Your task to perform on an android device: Search for vegetarian restaurants on Maps Image 0: 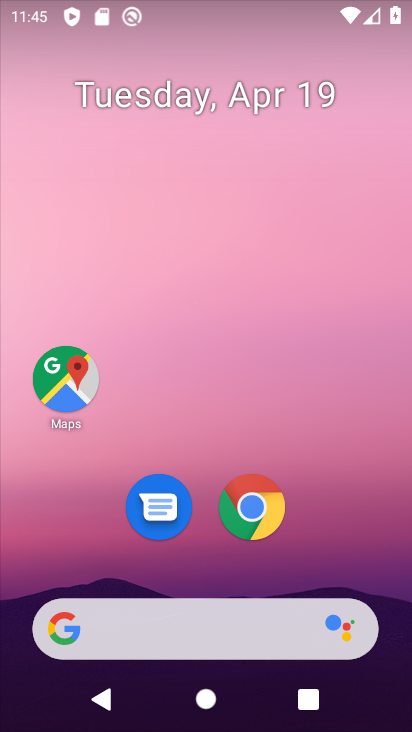
Step 0: click (239, 168)
Your task to perform on an android device: Search for vegetarian restaurants on Maps Image 1: 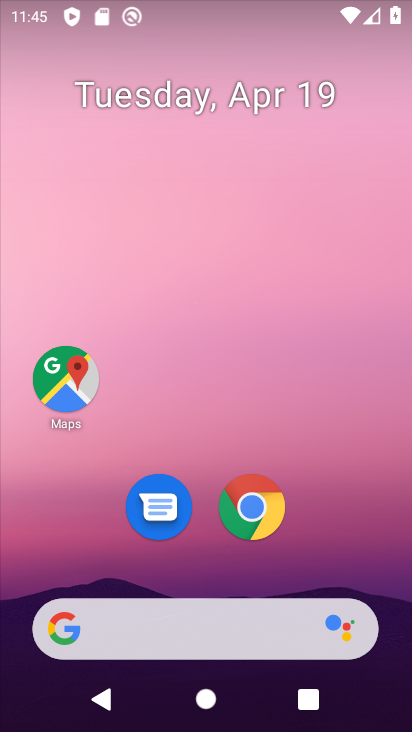
Step 1: press home button
Your task to perform on an android device: Search for vegetarian restaurants on Maps Image 2: 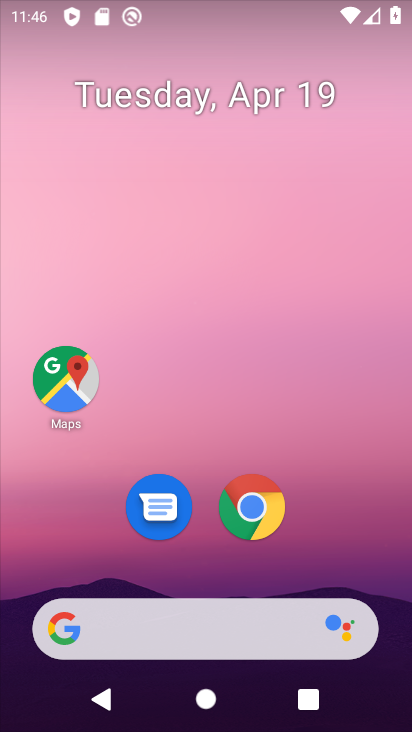
Step 2: click (63, 384)
Your task to perform on an android device: Search for vegetarian restaurants on Maps Image 3: 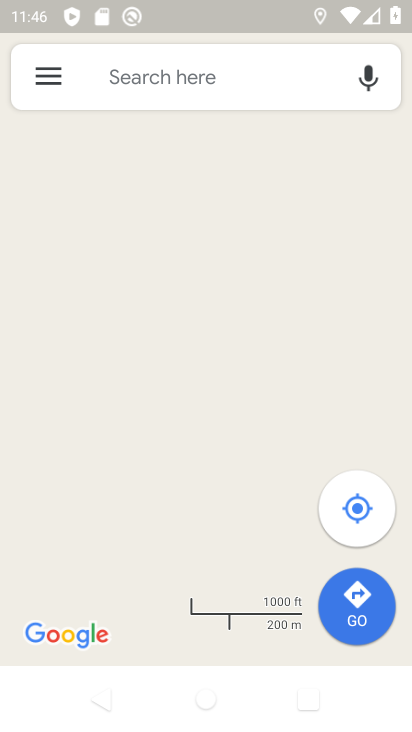
Step 3: click (252, 73)
Your task to perform on an android device: Search for vegetarian restaurants on Maps Image 4: 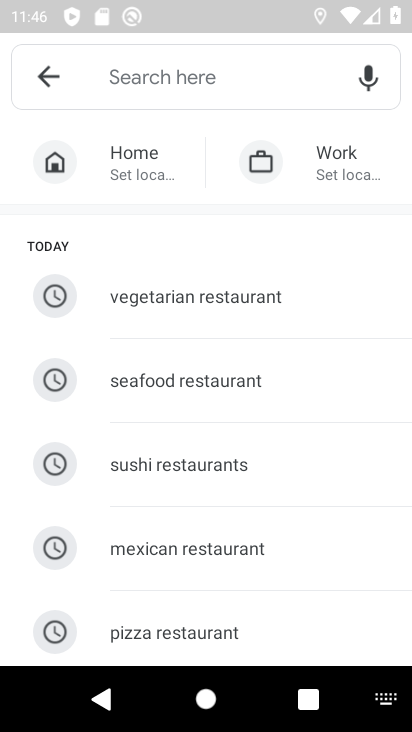
Step 4: type "vegetarian restaurants"
Your task to perform on an android device: Search for vegetarian restaurants on Maps Image 5: 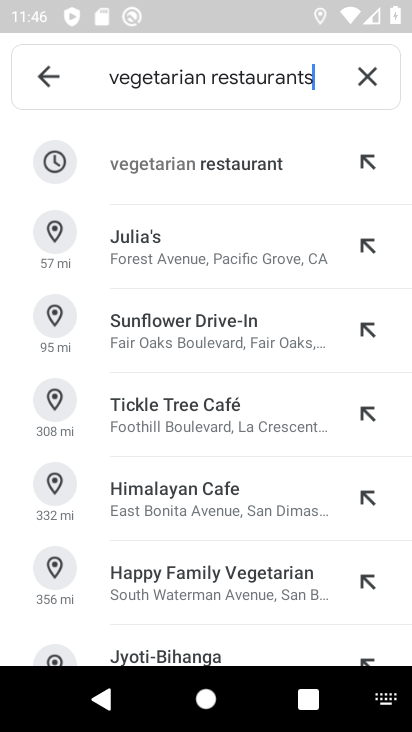
Step 5: click (198, 173)
Your task to perform on an android device: Search for vegetarian restaurants on Maps Image 6: 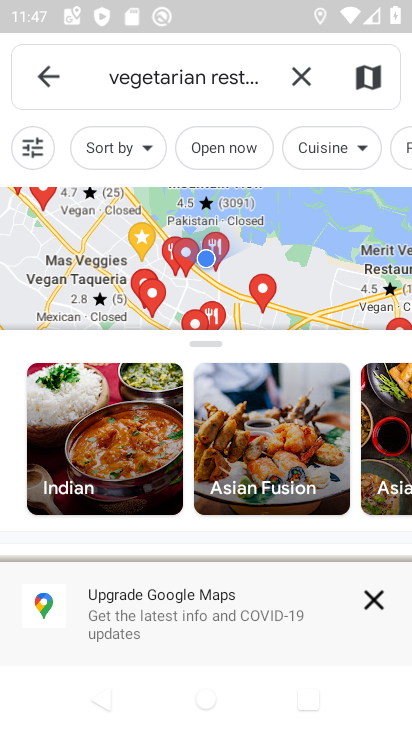
Step 6: task complete